Your task to perform on an android device: turn pop-ups off in chrome Image 0: 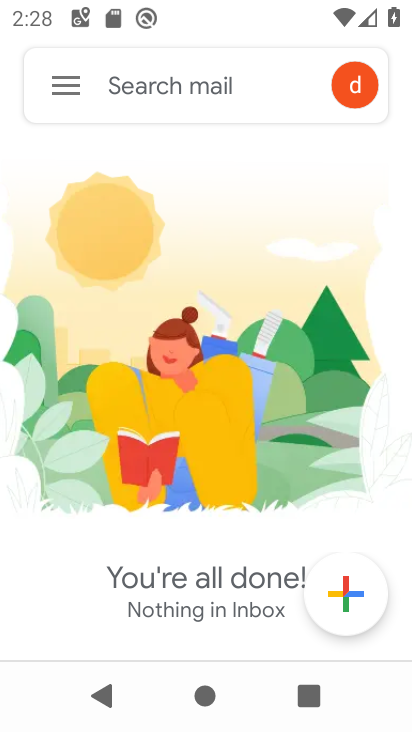
Step 0: press home button
Your task to perform on an android device: turn pop-ups off in chrome Image 1: 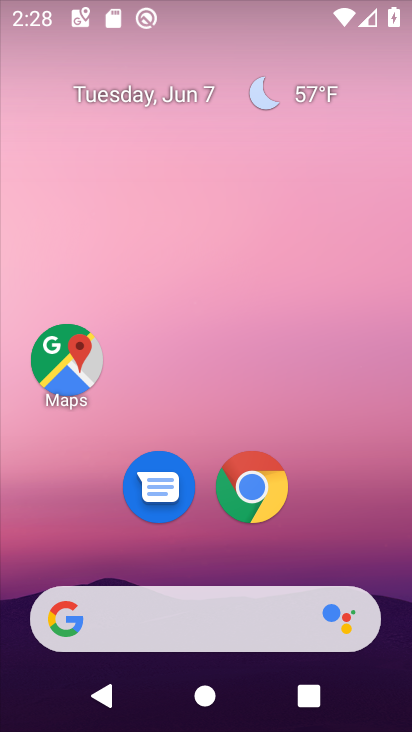
Step 1: drag from (211, 559) to (140, 50)
Your task to perform on an android device: turn pop-ups off in chrome Image 2: 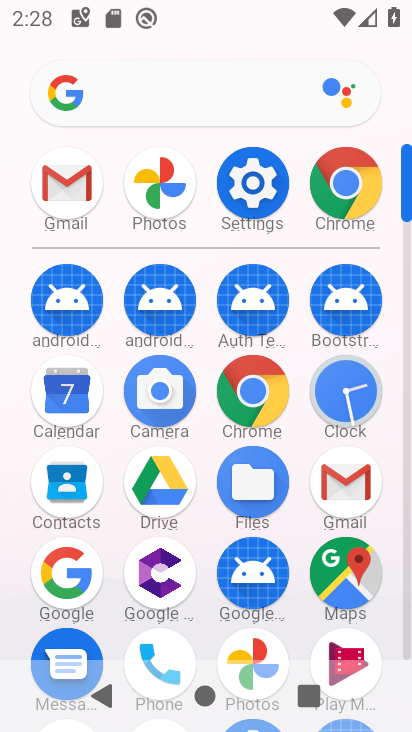
Step 2: click (366, 196)
Your task to perform on an android device: turn pop-ups off in chrome Image 3: 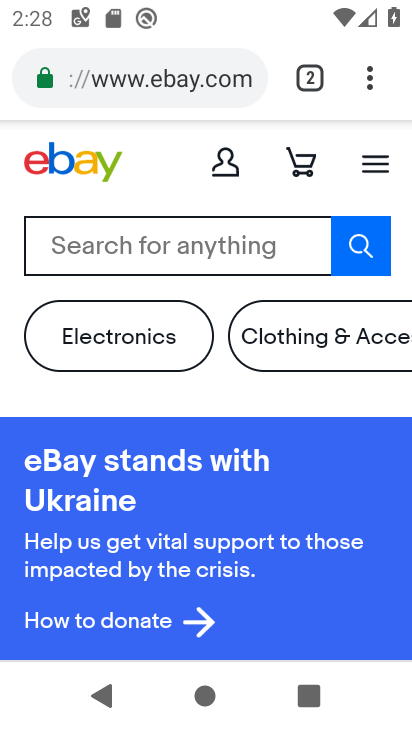
Step 3: click (366, 80)
Your task to perform on an android device: turn pop-ups off in chrome Image 4: 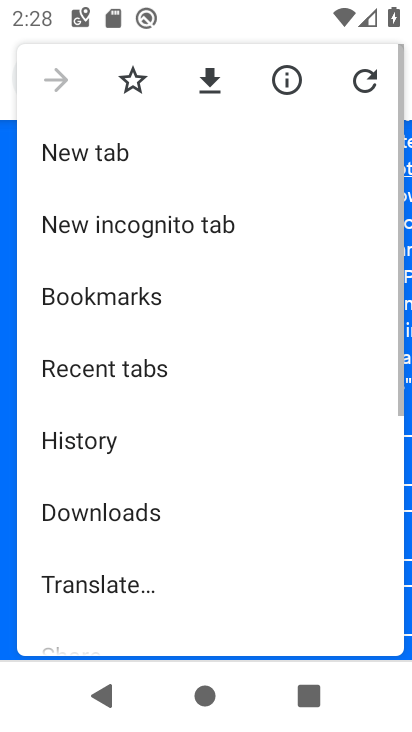
Step 4: drag from (245, 523) to (194, 78)
Your task to perform on an android device: turn pop-ups off in chrome Image 5: 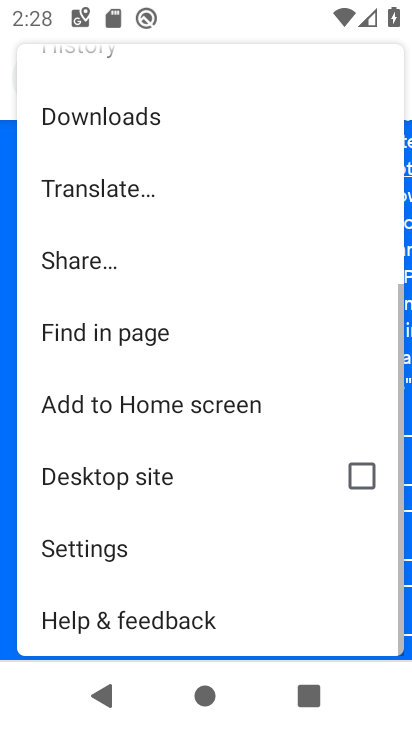
Step 5: click (122, 537)
Your task to perform on an android device: turn pop-ups off in chrome Image 6: 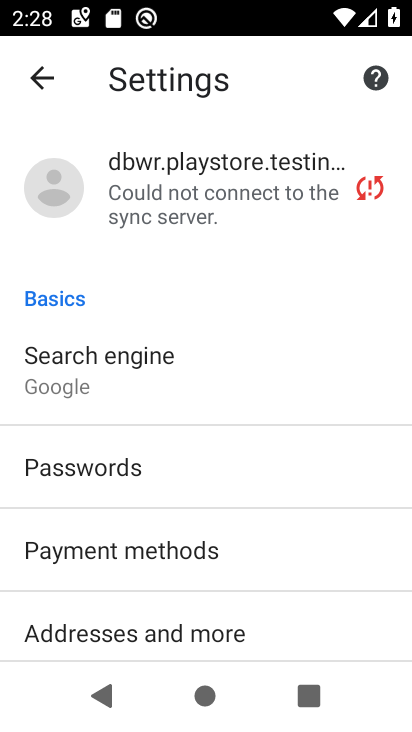
Step 6: drag from (140, 535) to (144, 82)
Your task to perform on an android device: turn pop-ups off in chrome Image 7: 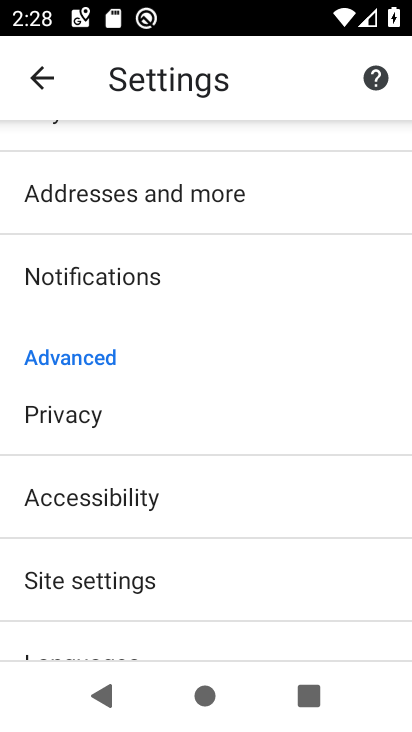
Step 7: click (307, 567)
Your task to perform on an android device: turn pop-ups off in chrome Image 8: 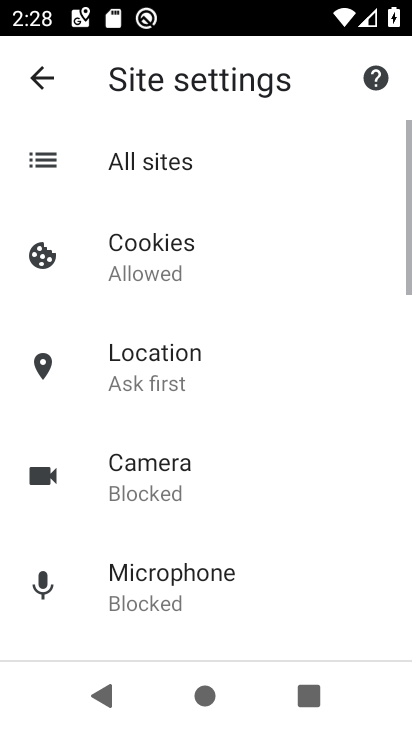
Step 8: drag from (305, 564) to (265, 183)
Your task to perform on an android device: turn pop-ups off in chrome Image 9: 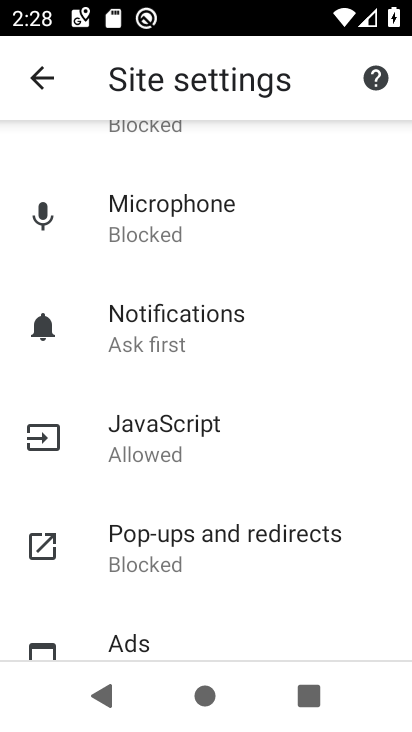
Step 9: click (163, 558)
Your task to perform on an android device: turn pop-ups off in chrome Image 10: 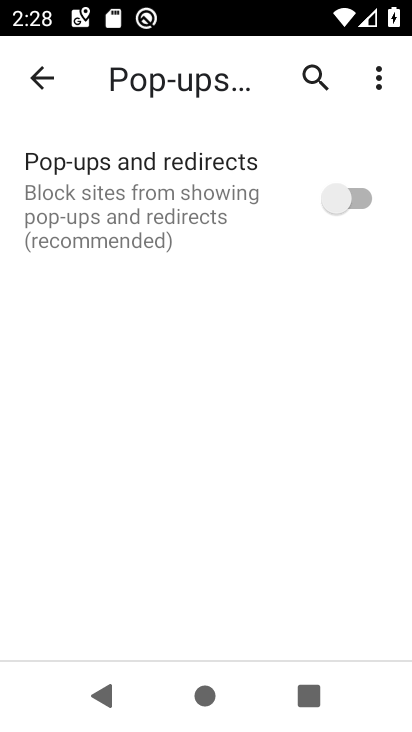
Step 10: task complete